Your task to perform on an android device: find snoozed emails in the gmail app Image 0: 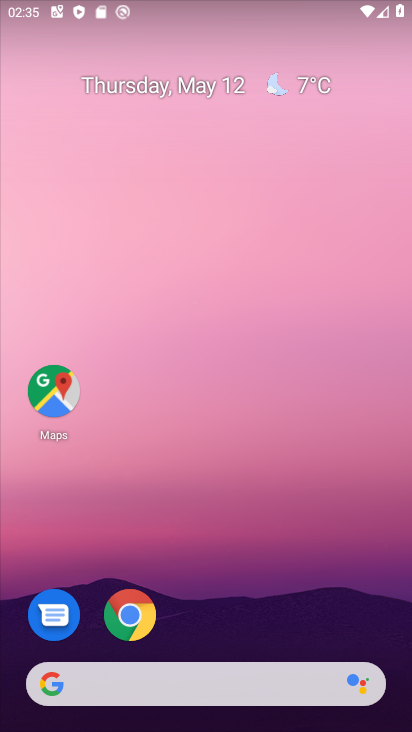
Step 0: drag from (200, 686) to (188, 151)
Your task to perform on an android device: find snoozed emails in the gmail app Image 1: 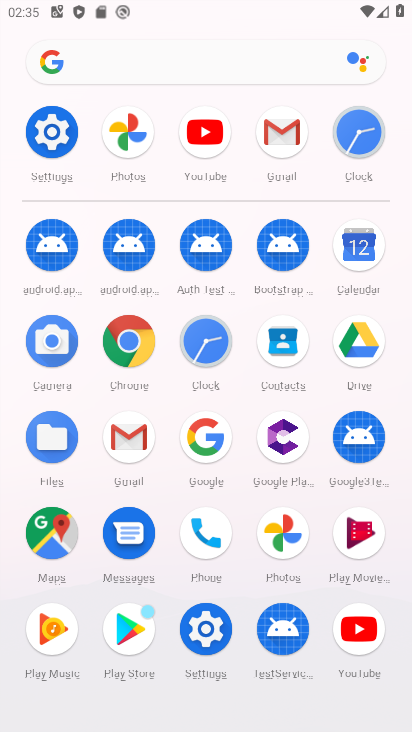
Step 1: click (284, 153)
Your task to perform on an android device: find snoozed emails in the gmail app Image 2: 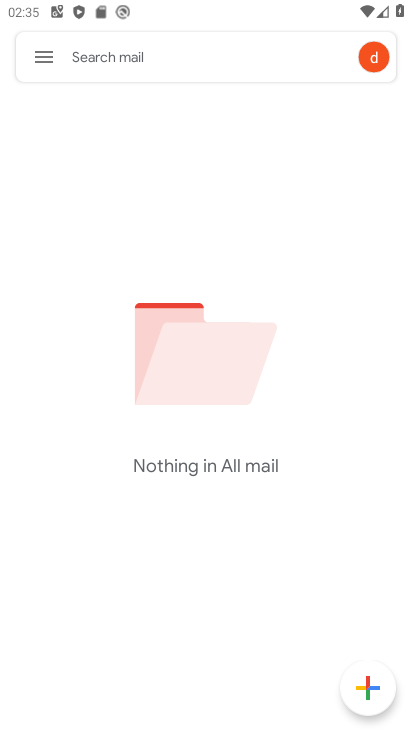
Step 2: click (47, 61)
Your task to perform on an android device: find snoozed emails in the gmail app Image 3: 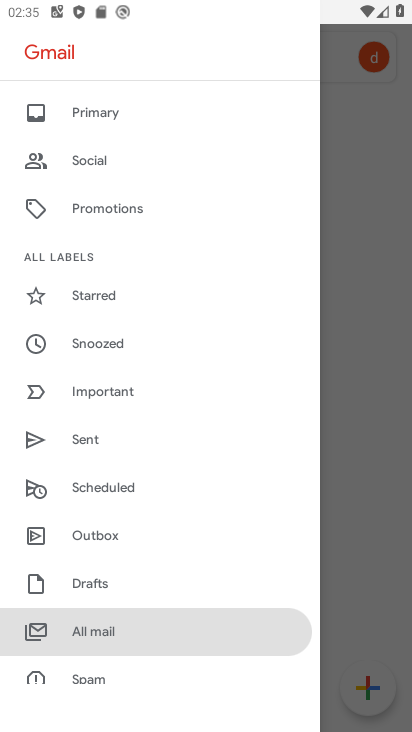
Step 3: click (124, 345)
Your task to perform on an android device: find snoozed emails in the gmail app Image 4: 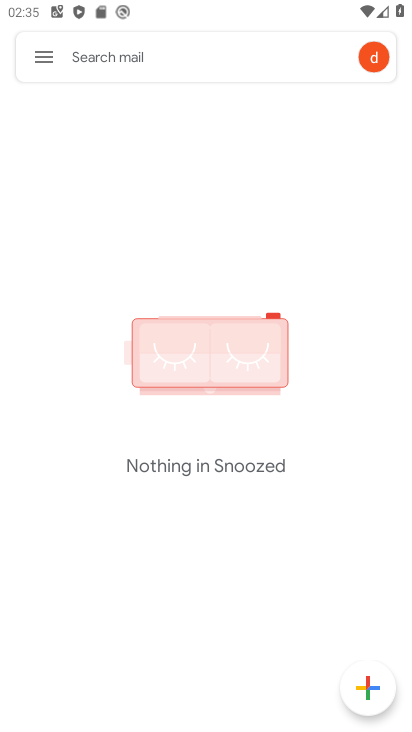
Step 4: click (57, 55)
Your task to perform on an android device: find snoozed emails in the gmail app Image 5: 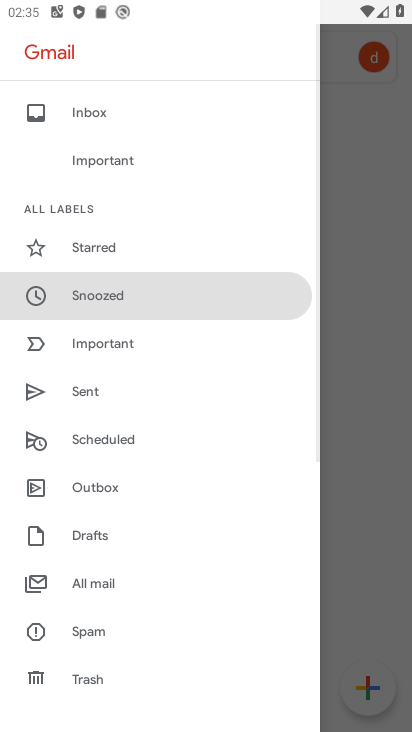
Step 5: click (123, 295)
Your task to perform on an android device: find snoozed emails in the gmail app Image 6: 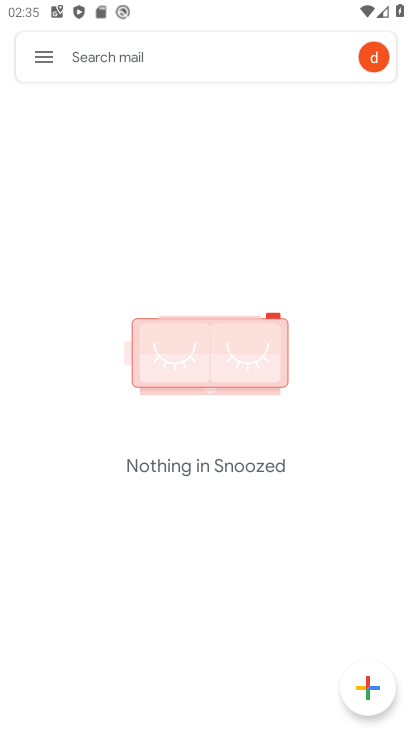
Step 6: task complete